Your task to perform on an android device: uninstall "Nova Launcher" Image 0: 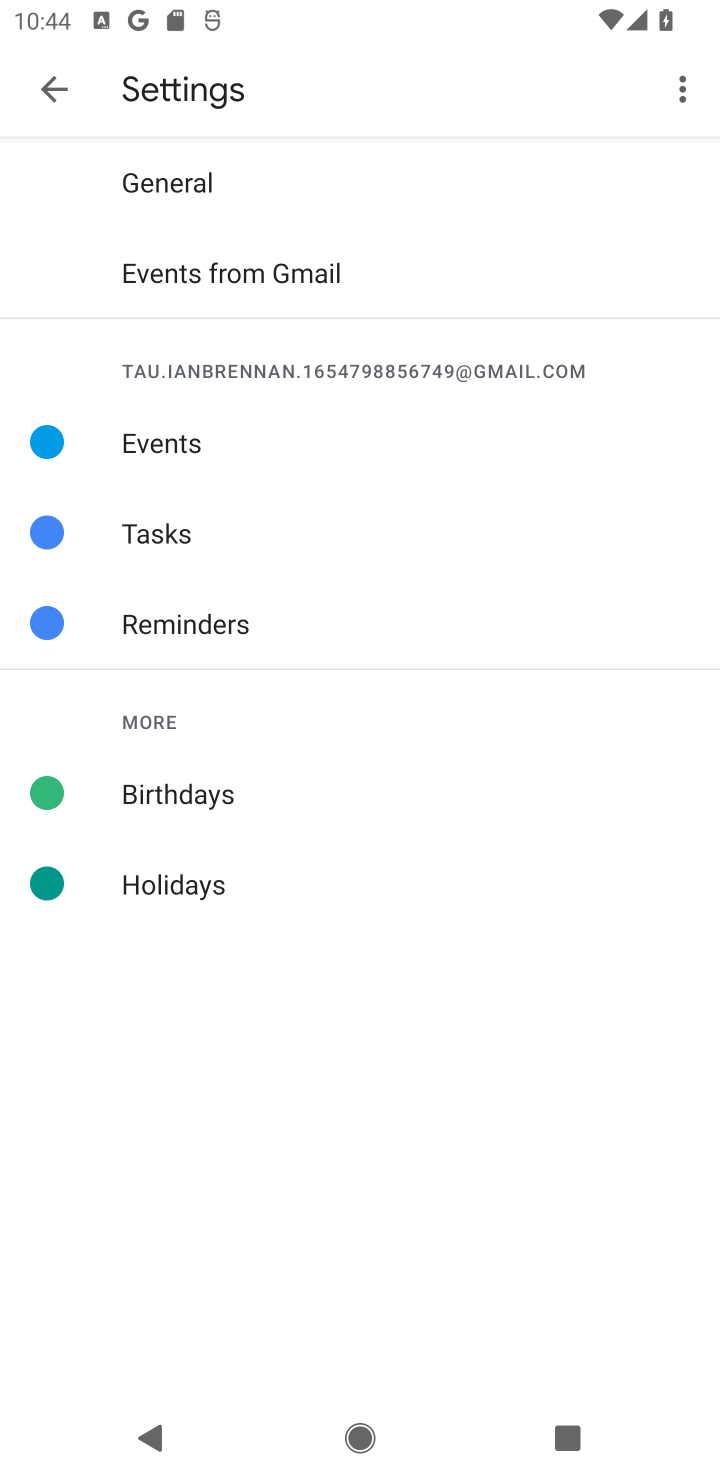
Step 0: press back button
Your task to perform on an android device: uninstall "Nova Launcher" Image 1: 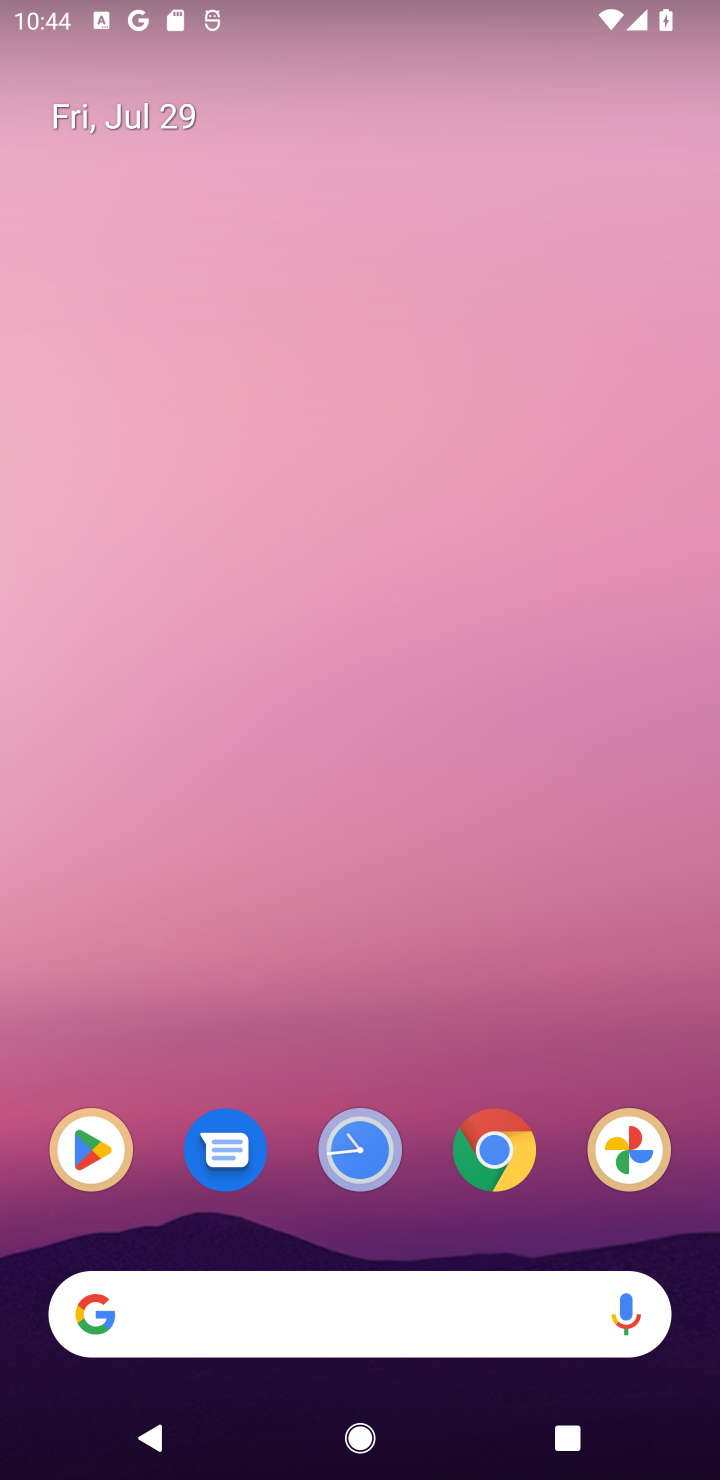
Step 1: click (62, 1160)
Your task to perform on an android device: uninstall "Nova Launcher" Image 2: 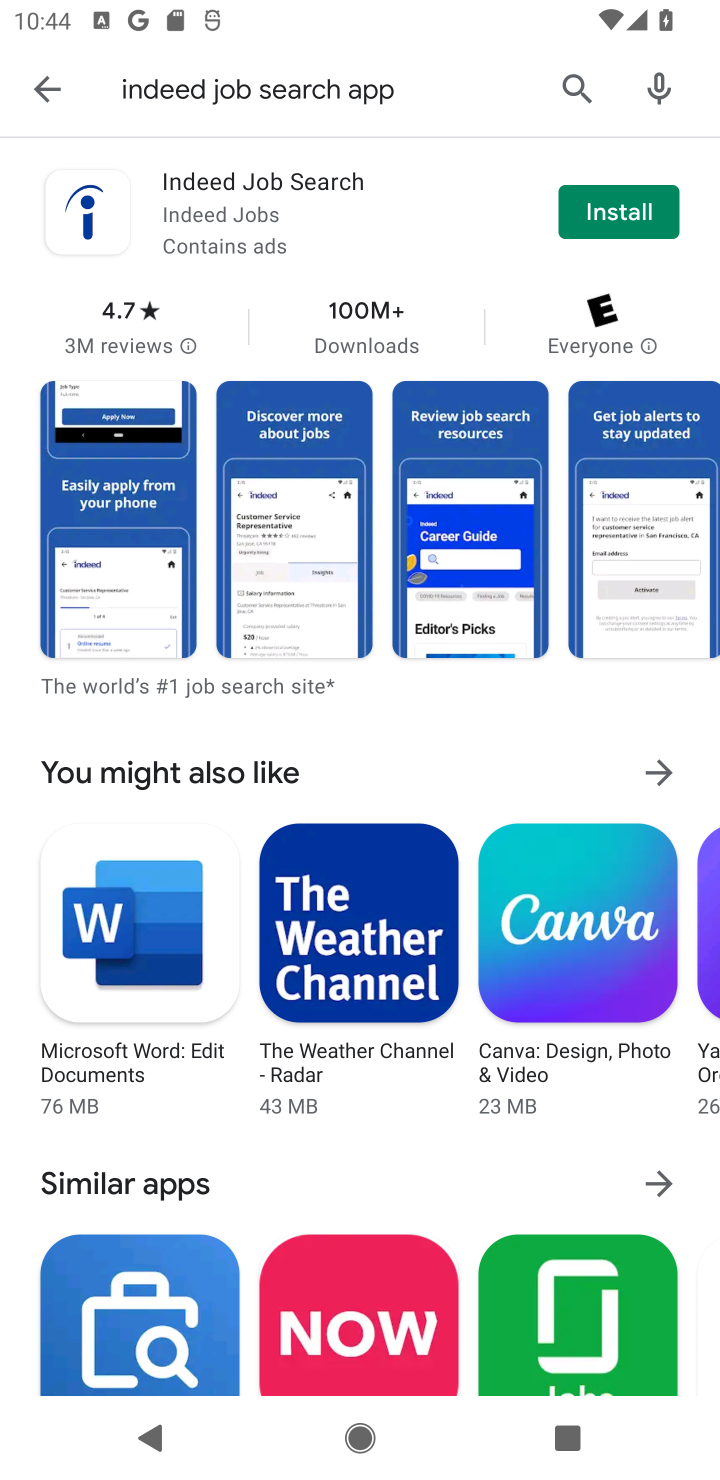
Step 2: click (574, 73)
Your task to perform on an android device: uninstall "Nova Launcher" Image 3: 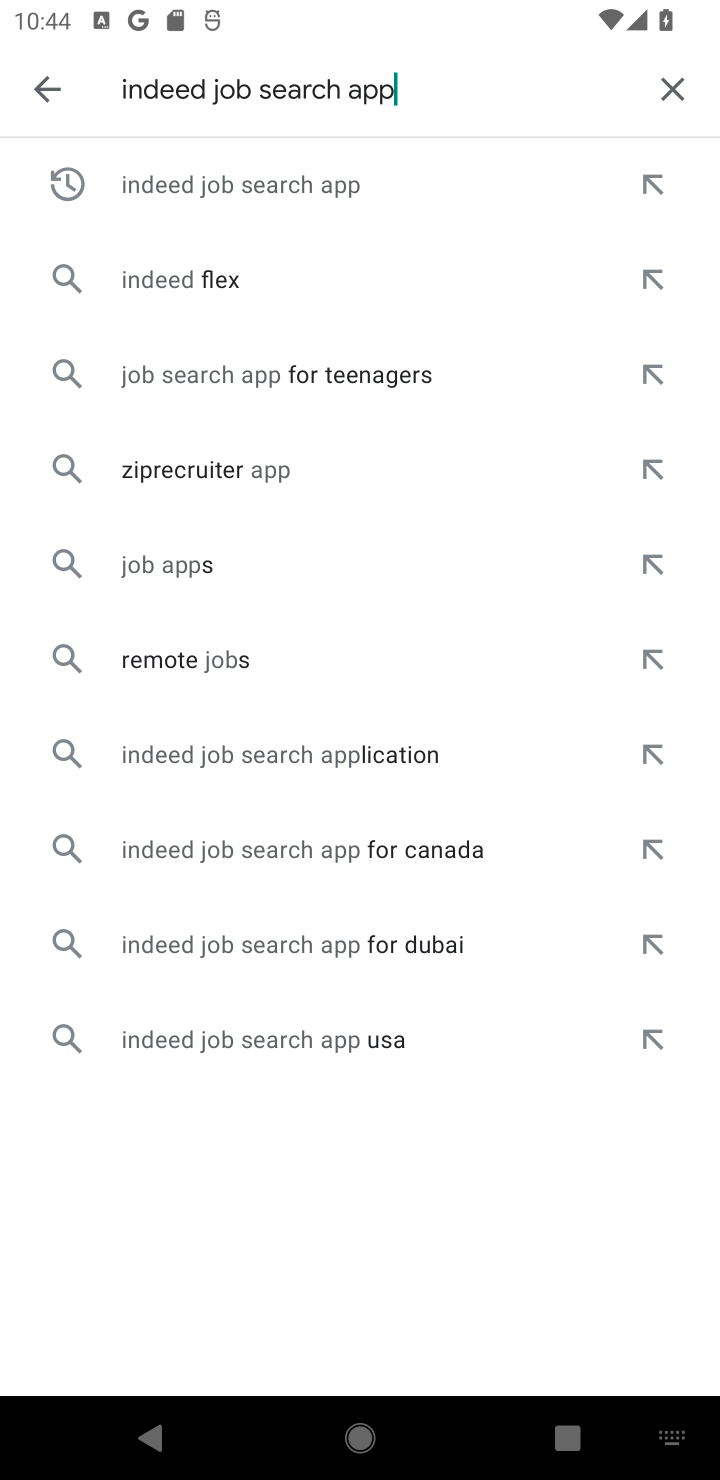
Step 3: click (664, 91)
Your task to perform on an android device: uninstall "Nova Launcher" Image 4: 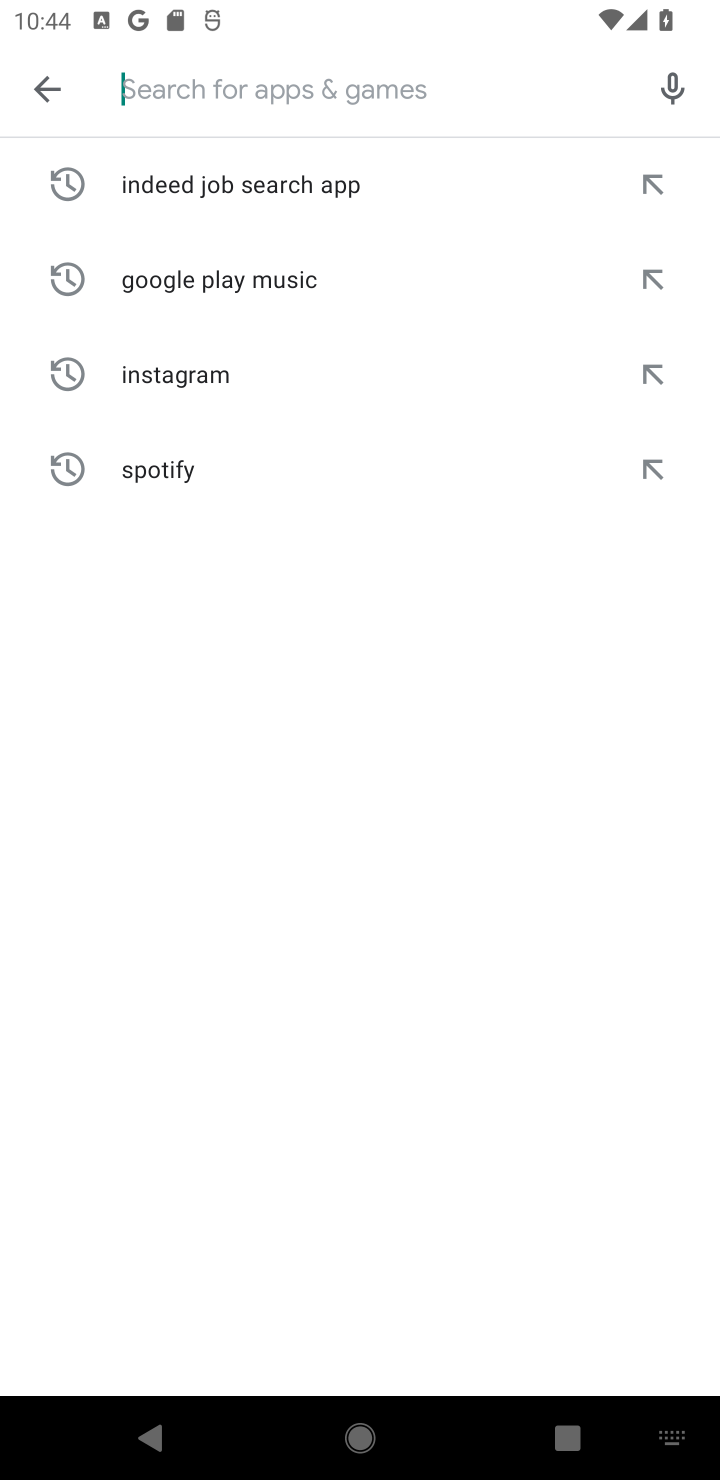
Step 4: click (236, 94)
Your task to perform on an android device: uninstall "Nova Launcher" Image 5: 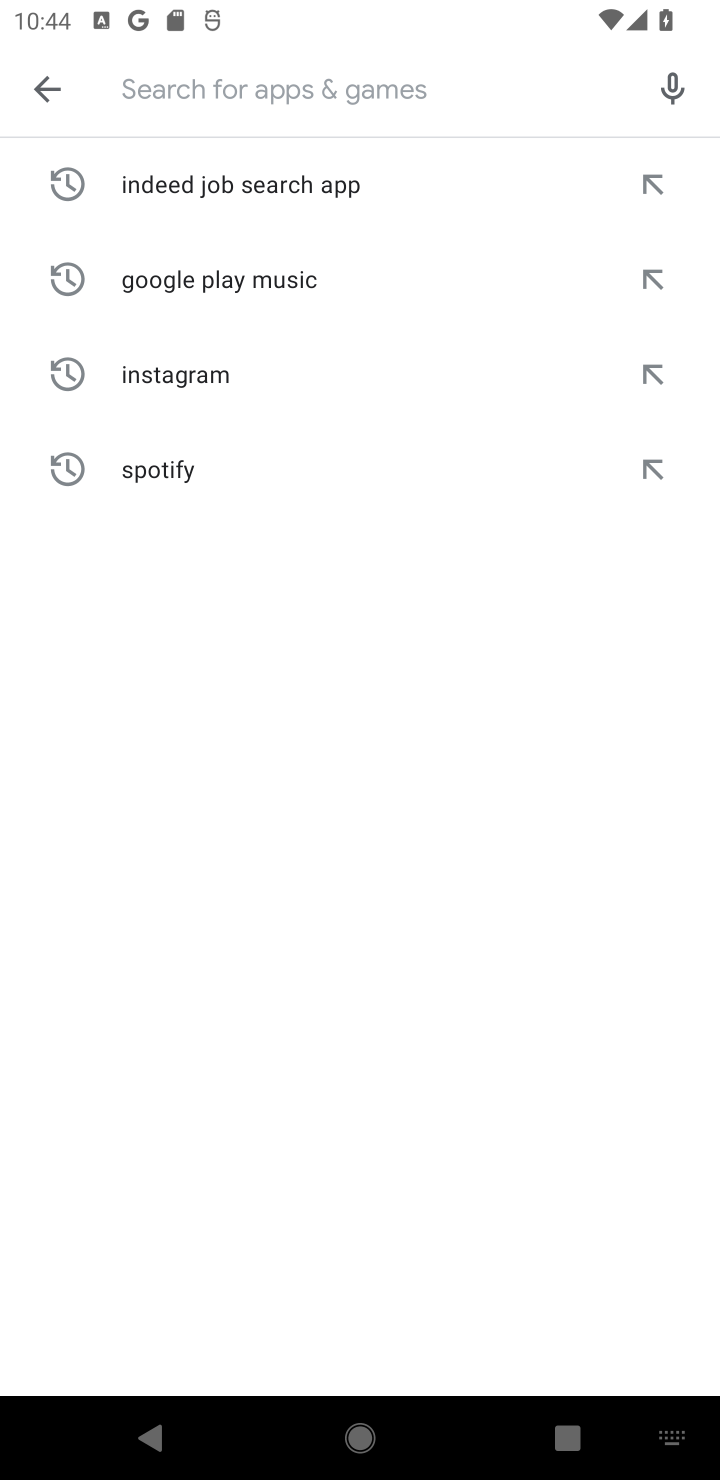
Step 5: type "nova launcher"
Your task to perform on an android device: uninstall "Nova Launcher" Image 6: 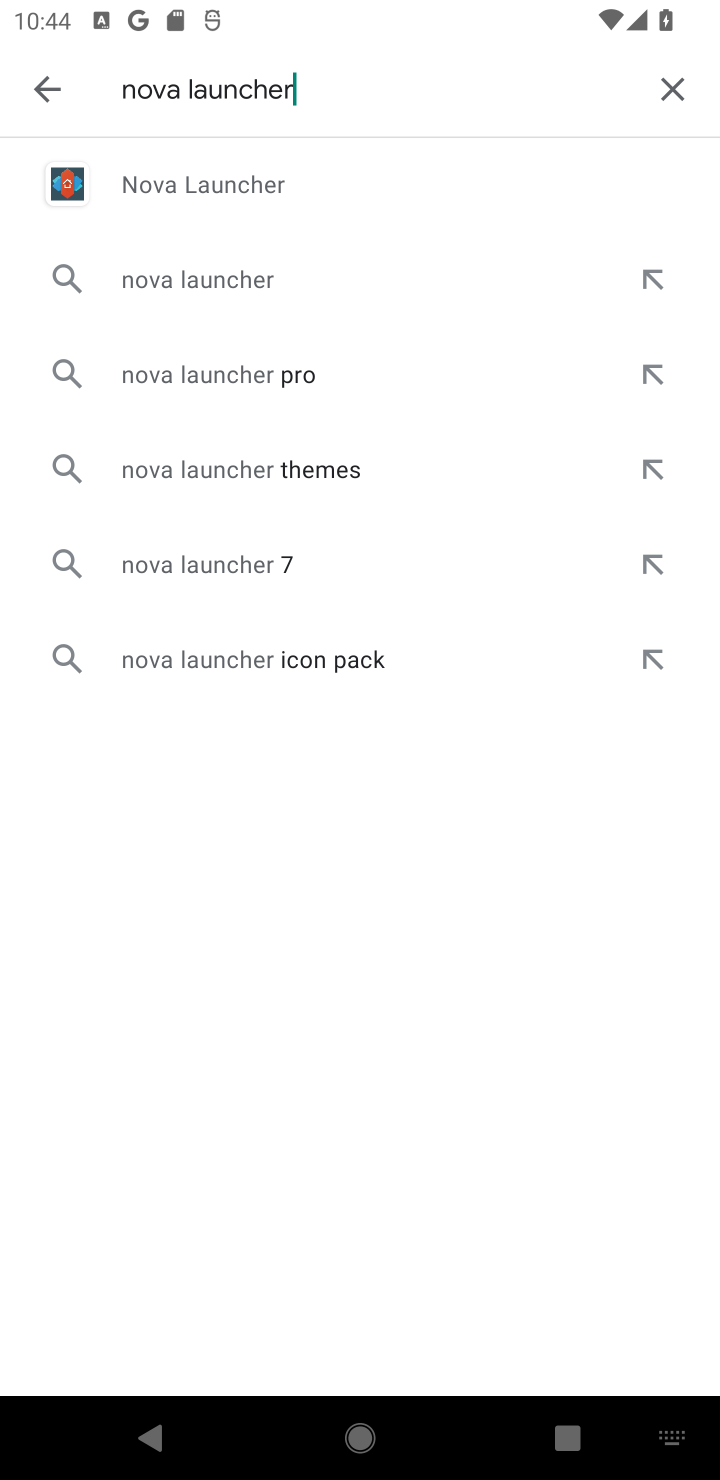
Step 6: click (193, 174)
Your task to perform on an android device: uninstall "Nova Launcher" Image 7: 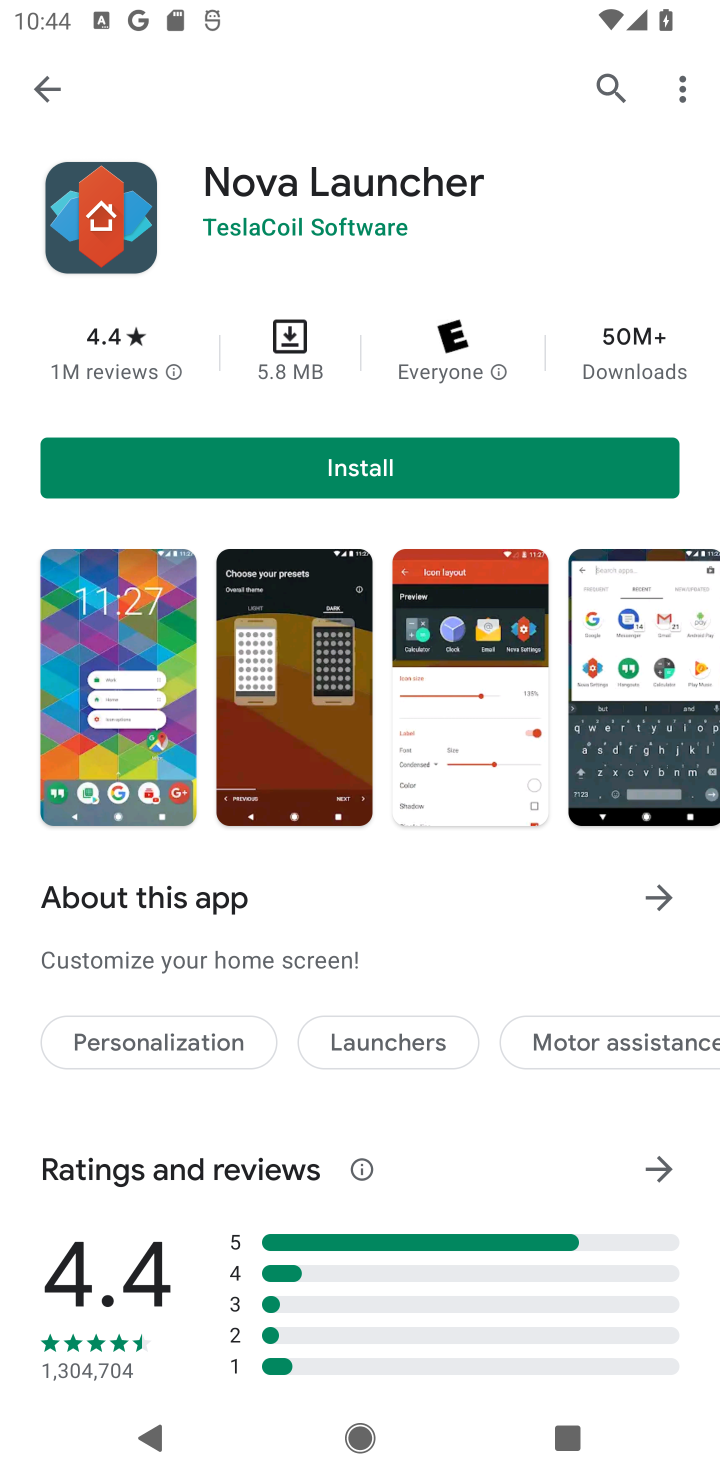
Step 7: task complete